Your task to perform on an android device: Play the last video I watched on Youtube Image 0: 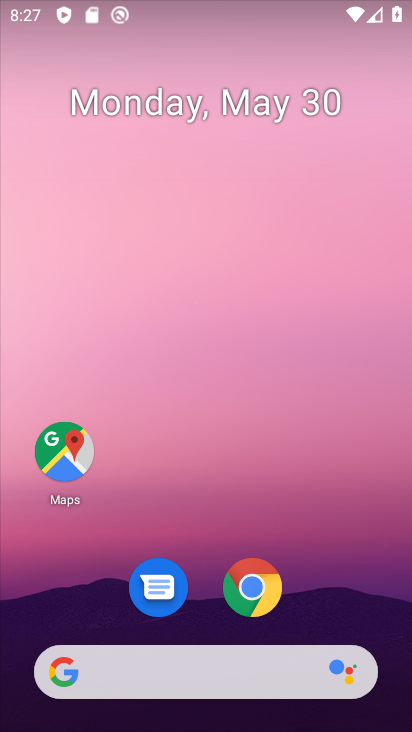
Step 0: drag from (207, 565) to (260, 117)
Your task to perform on an android device: Play the last video I watched on Youtube Image 1: 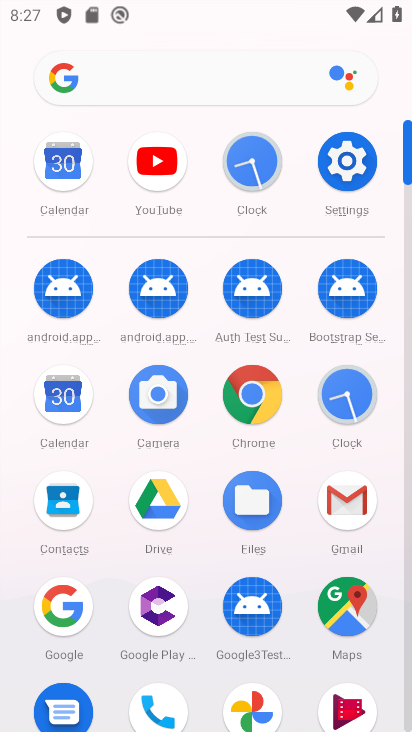
Step 1: click (171, 165)
Your task to perform on an android device: Play the last video I watched on Youtube Image 2: 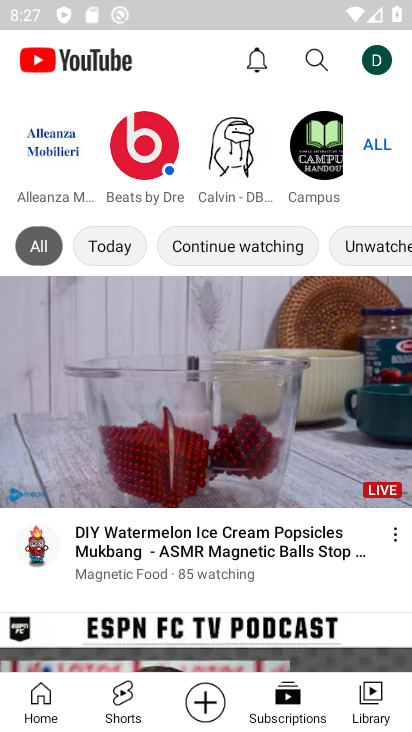
Step 2: click (365, 692)
Your task to perform on an android device: Play the last video I watched on Youtube Image 3: 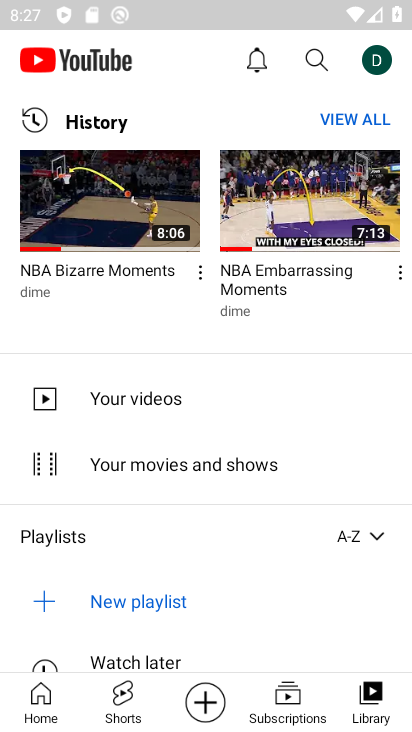
Step 3: click (118, 195)
Your task to perform on an android device: Play the last video I watched on Youtube Image 4: 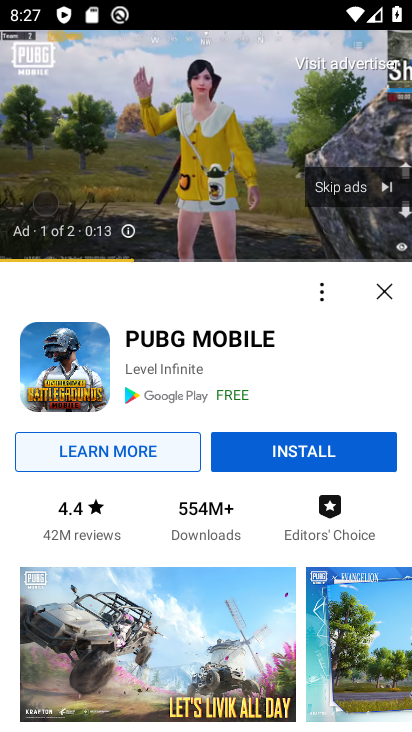
Step 4: click (382, 181)
Your task to perform on an android device: Play the last video I watched on Youtube Image 5: 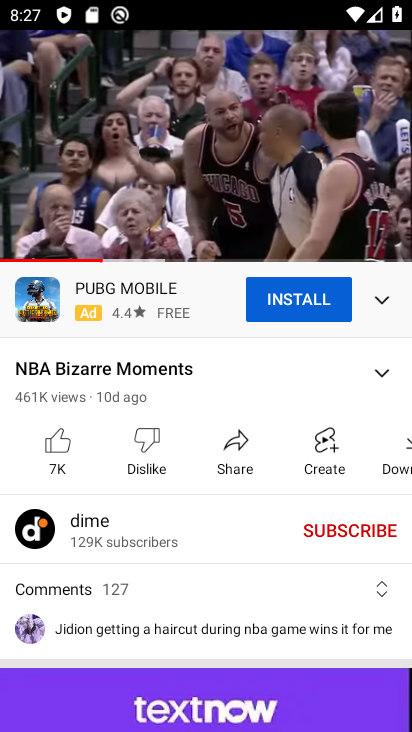
Step 5: task complete